Your task to perform on an android device: remove spam from my inbox in the gmail app Image 0: 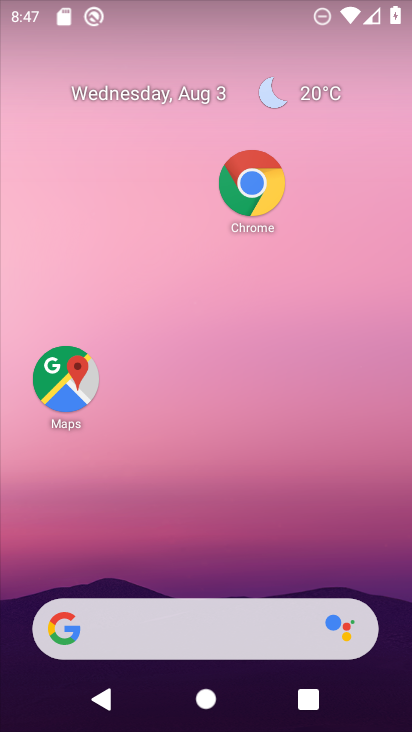
Step 0: drag from (177, 382) to (196, 45)
Your task to perform on an android device: remove spam from my inbox in the gmail app Image 1: 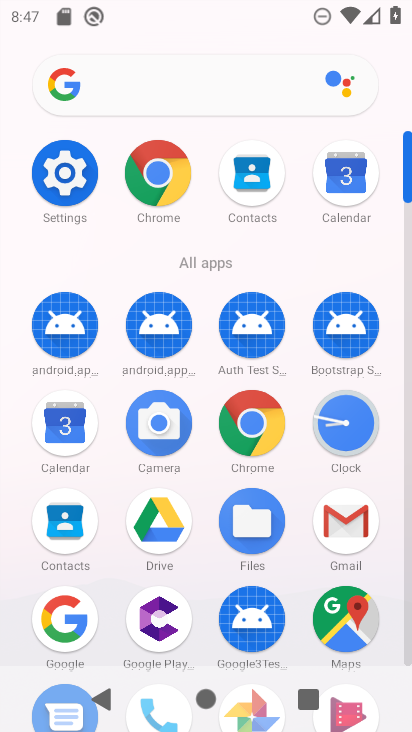
Step 1: drag from (223, 605) to (225, 402)
Your task to perform on an android device: remove spam from my inbox in the gmail app Image 2: 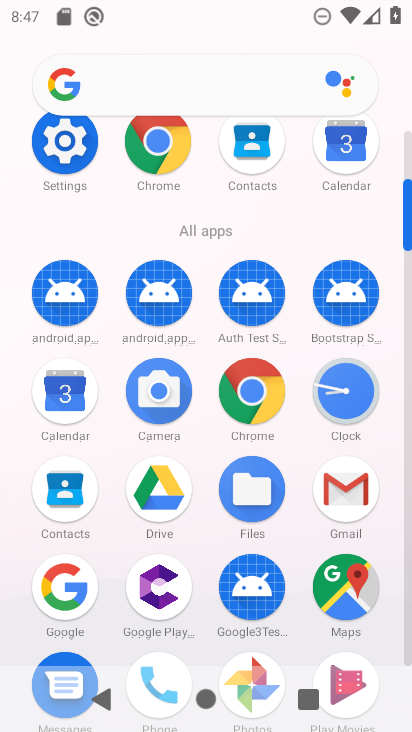
Step 2: drag from (187, 586) to (187, 290)
Your task to perform on an android device: remove spam from my inbox in the gmail app Image 3: 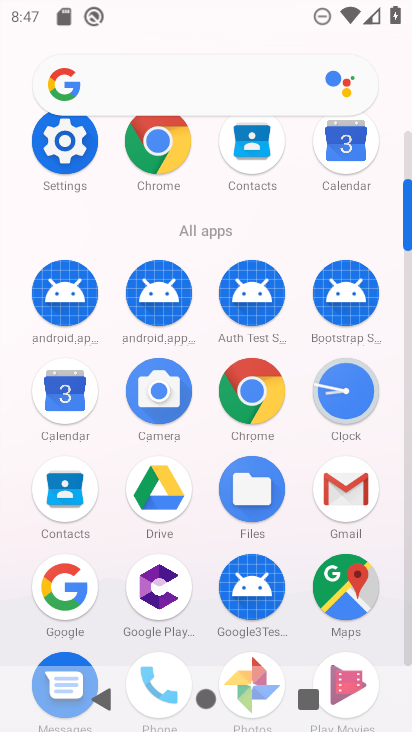
Step 3: click (351, 511)
Your task to perform on an android device: remove spam from my inbox in the gmail app Image 4: 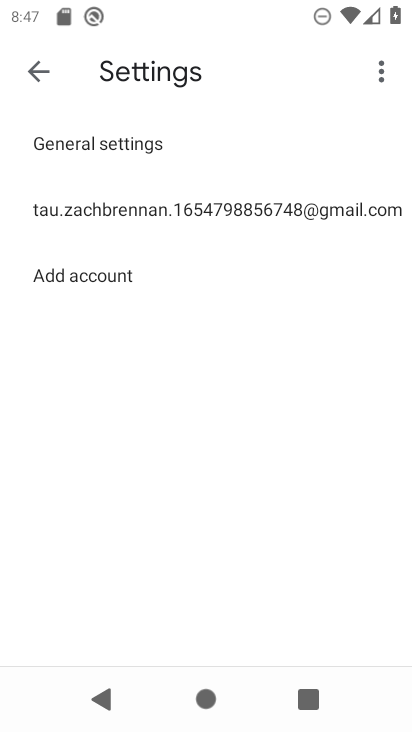
Step 4: click (40, 71)
Your task to perform on an android device: remove spam from my inbox in the gmail app Image 5: 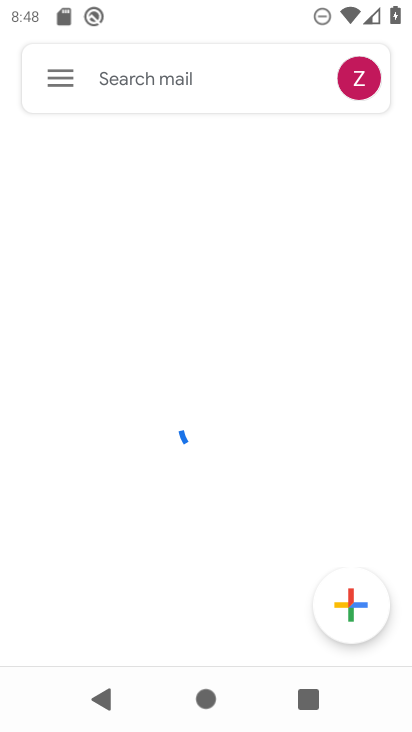
Step 5: click (58, 71)
Your task to perform on an android device: remove spam from my inbox in the gmail app Image 6: 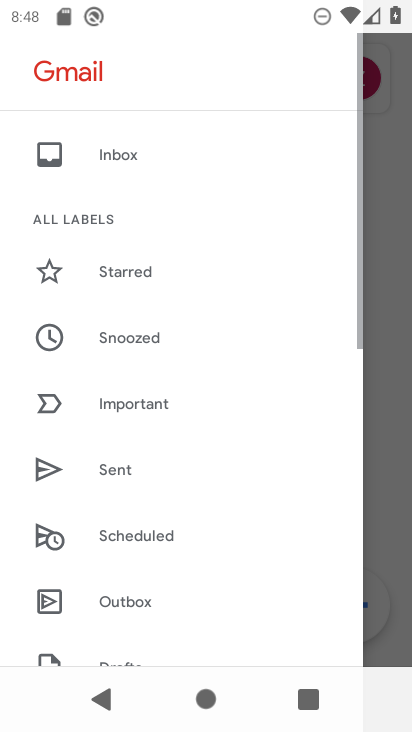
Step 6: drag from (150, 601) to (168, 394)
Your task to perform on an android device: remove spam from my inbox in the gmail app Image 7: 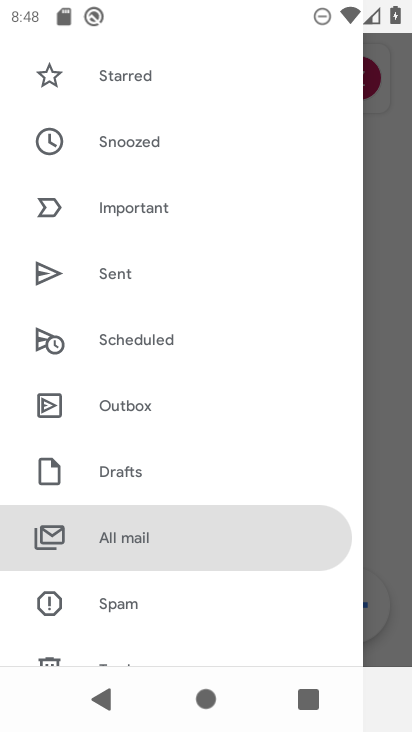
Step 7: click (117, 598)
Your task to perform on an android device: remove spam from my inbox in the gmail app Image 8: 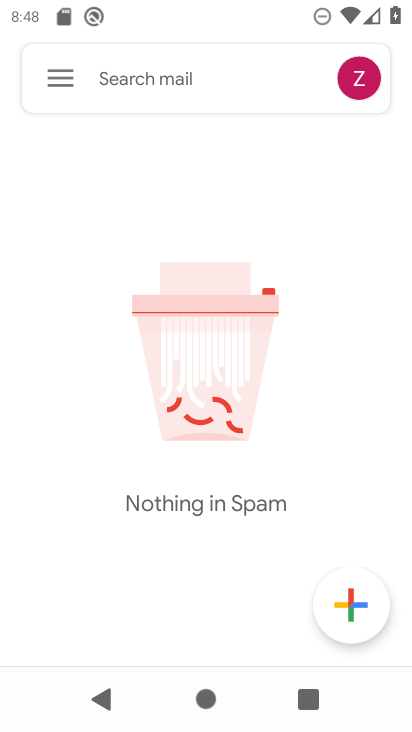
Step 8: task complete